Your task to perform on an android device: Go to privacy settings Image 0: 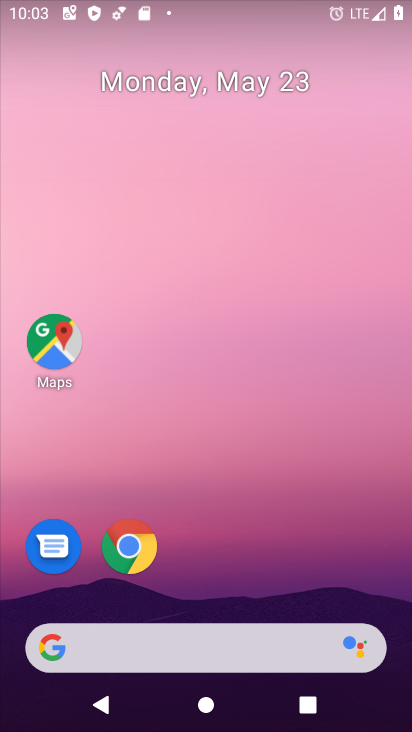
Step 0: drag from (376, 611) to (362, 283)
Your task to perform on an android device: Go to privacy settings Image 1: 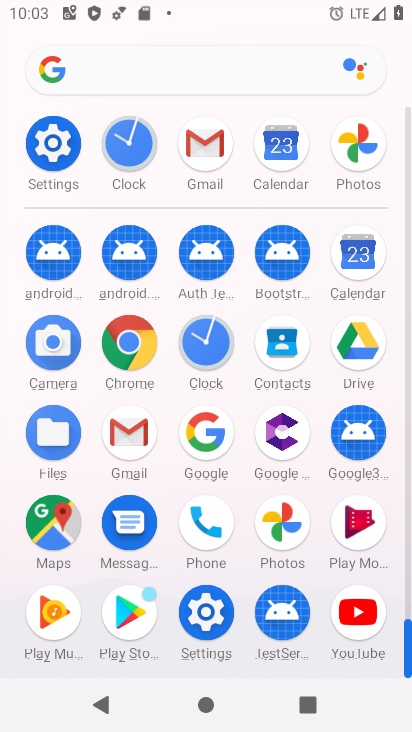
Step 1: click (204, 616)
Your task to perform on an android device: Go to privacy settings Image 2: 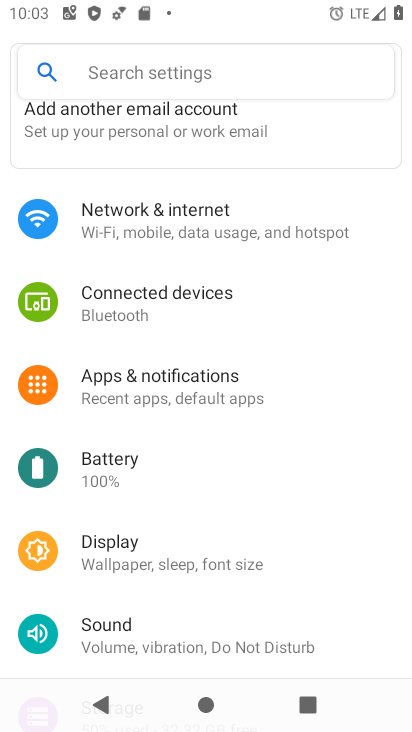
Step 2: drag from (323, 557) to (356, 200)
Your task to perform on an android device: Go to privacy settings Image 3: 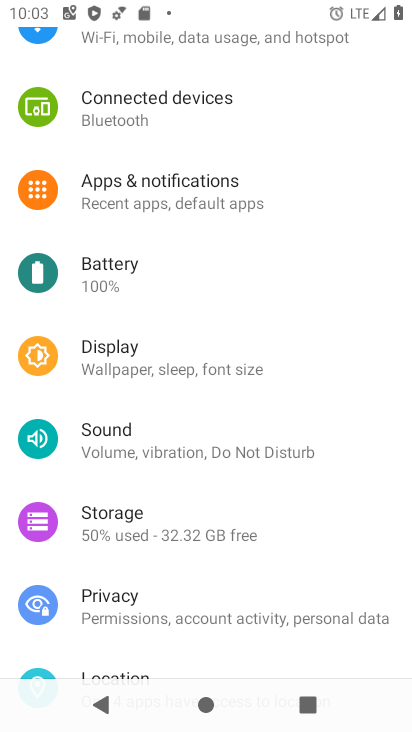
Step 3: click (115, 597)
Your task to perform on an android device: Go to privacy settings Image 4: 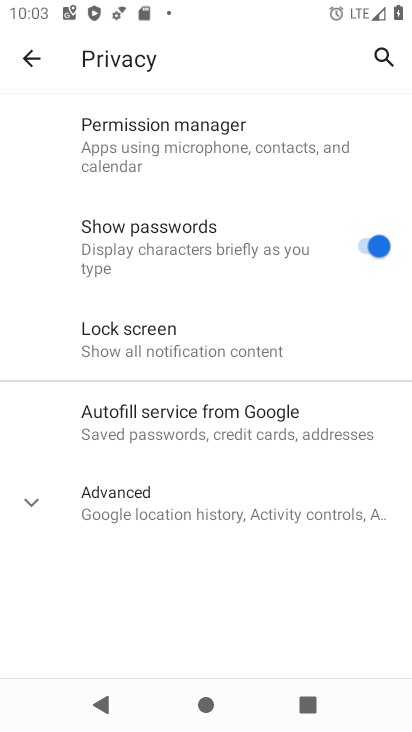
Step 4: click (29, 505)
Your task to perform on an android device: Go to privacy settings Image 5: 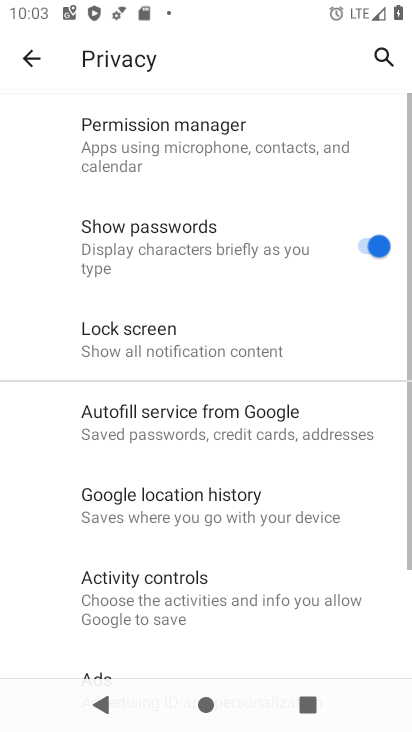
Step 5: task complete